Your task to perform on an android device: open the mobile data screen to see how much data has been used Image 0: 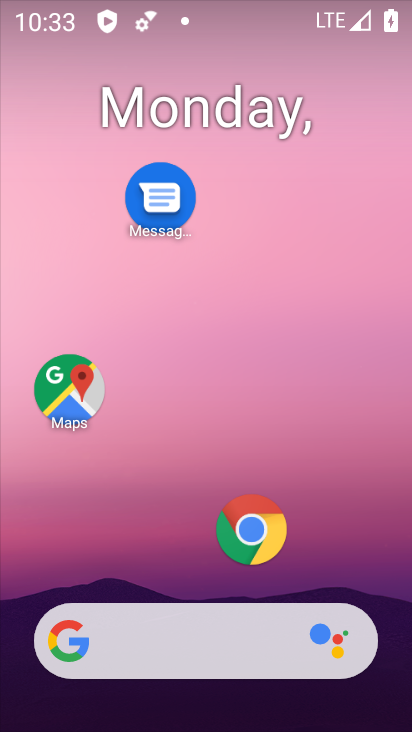
Step 0: drag from (169, 541) to (254, 139)
Your task to perform on an android device: open the mobile data screen to see how much data has been used Image 1: 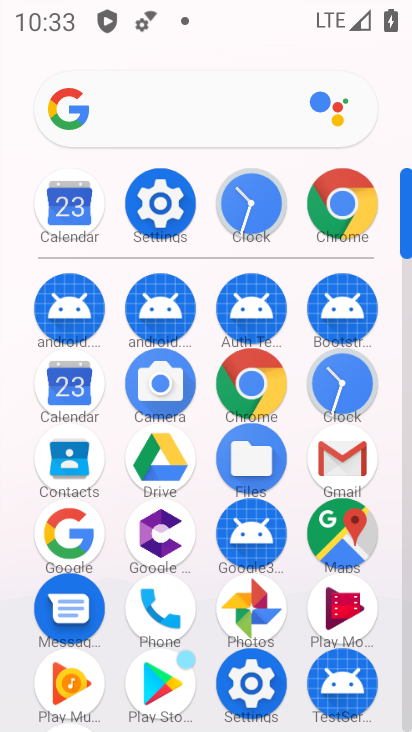
Step 1: click (164, 216)
Your task to perform on an android device: open the mobile data screen to see how much data has been used Image 2: 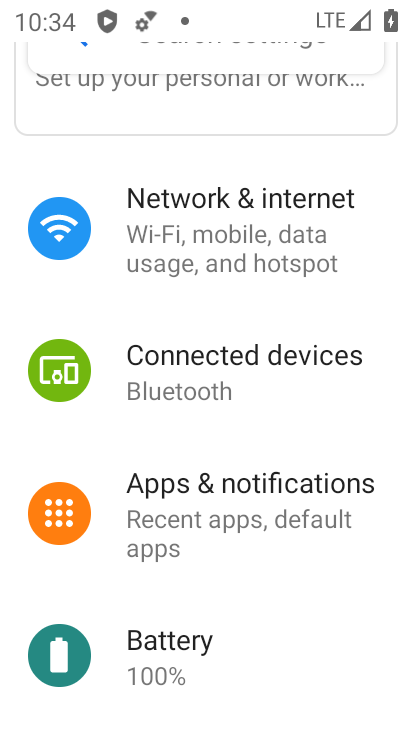
Step 2: click (297, 253)
Your task to perform on an android device: open the mobile data screen to see how much data has been used Image 3: 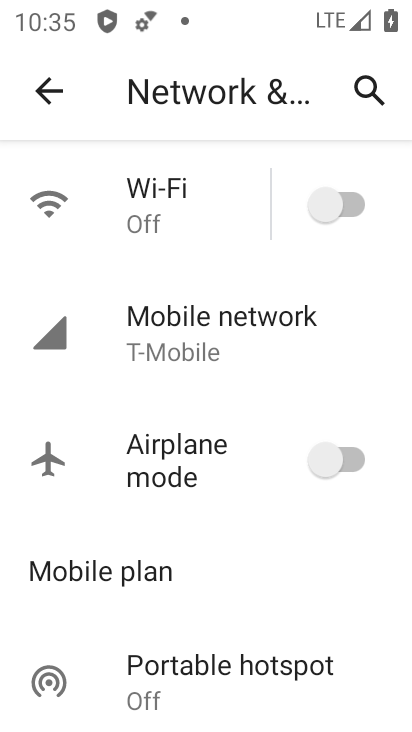
Step 3: click (197, 357)
Your task to perform on an android device: open the mobile data screen to see how much data has been used Image 4: 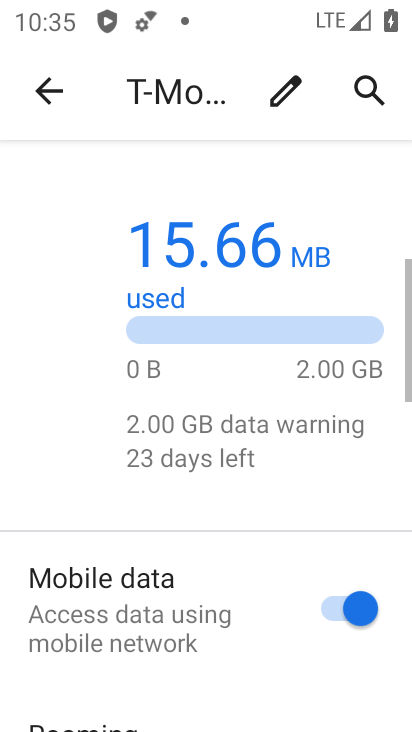
Step 4: drag from (192, 579) to (234, 310)
Your task to perform on an android device: open the mobile data screen to see how much data has been used Image 5: 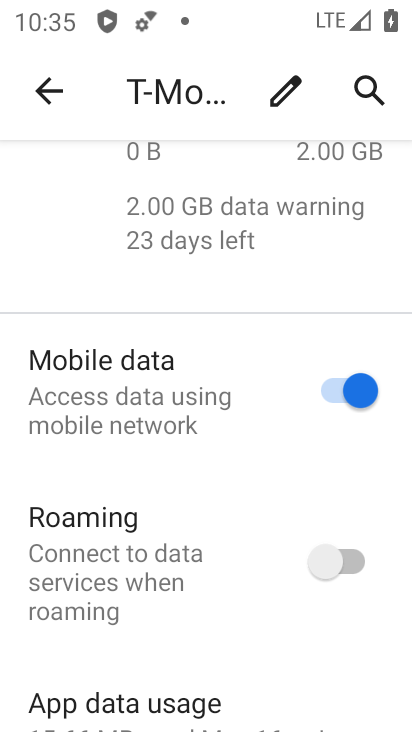
Step 5: click (269, 207)
Your task to perform on an android device: open the mobile data screen to see how much data has been used Image 6: 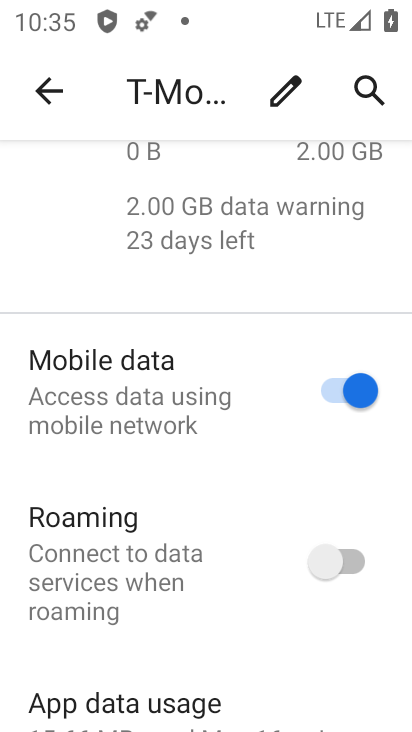
Step 6: click (291, 155)
Your task to perform on an android device: open the mobile data screen to see how much data has been used Image 7: 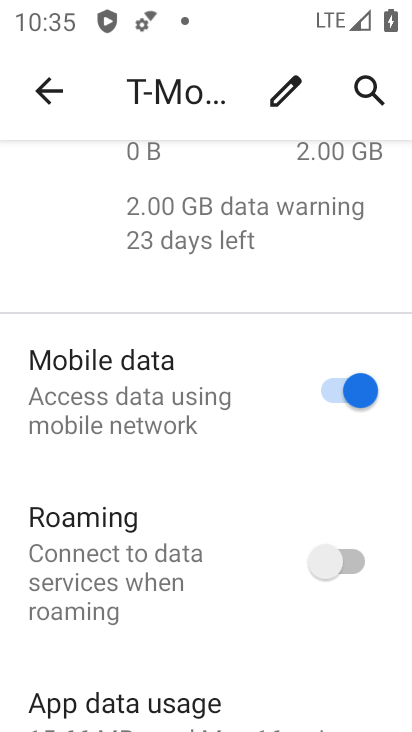
Step 7: task complete